Your task to perform on an android device: turn off location history Image 0: 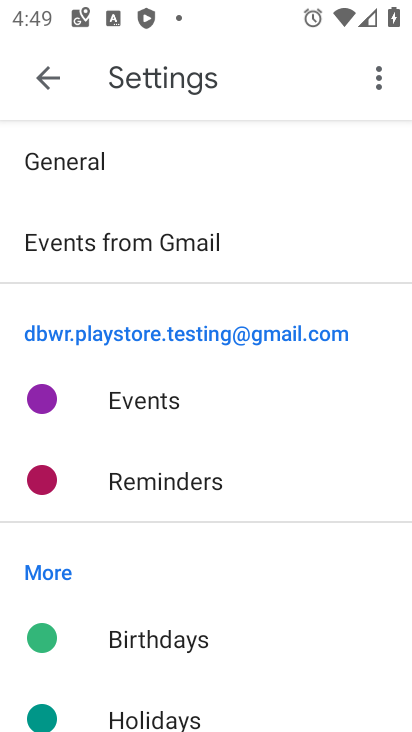
Step 0: press home button
Your task to perform on an android device: turn off location history Image 1: 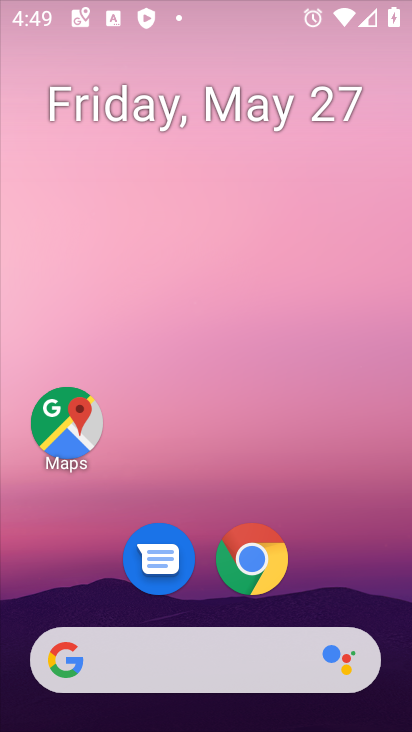
Step 1: drag from (237, 661) to (272, 149)
Your task to perform on an android device: turn off location history Image 2: 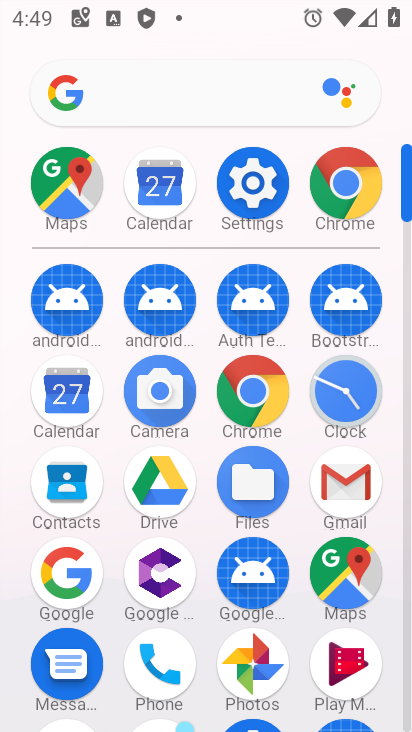
Step 2: drag from (292, 636) to (294, 264)
Your task to perform on an android device: turn off location history Image 3: 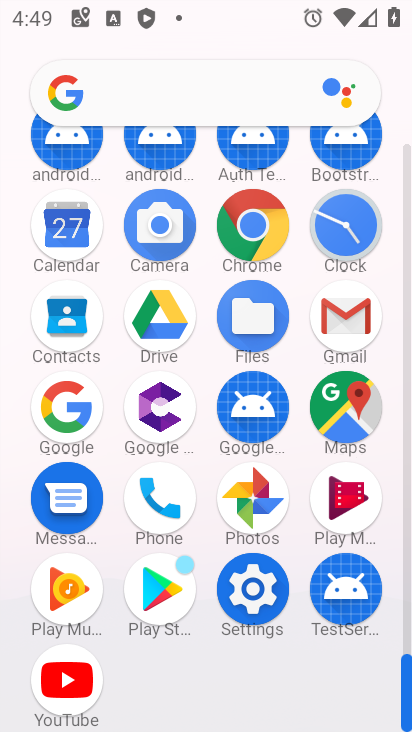
Step 3: click (262, 608)
Your task to perform on an android device: turn off location history Image 4: 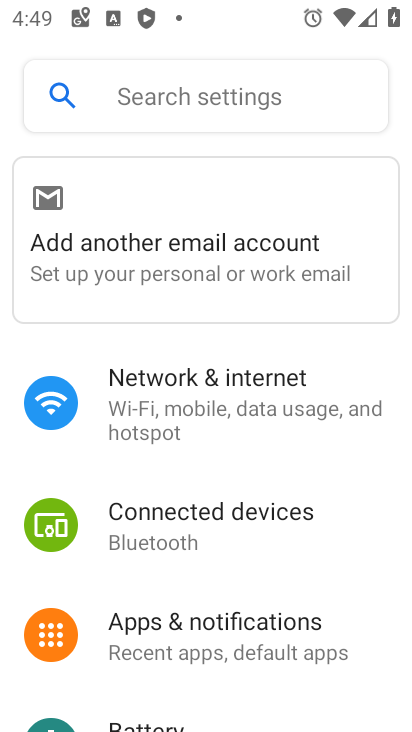
Step 4: drag from (262, 608) to (395, 92)
Your task to perform on an android device: turn off location history Image 5: 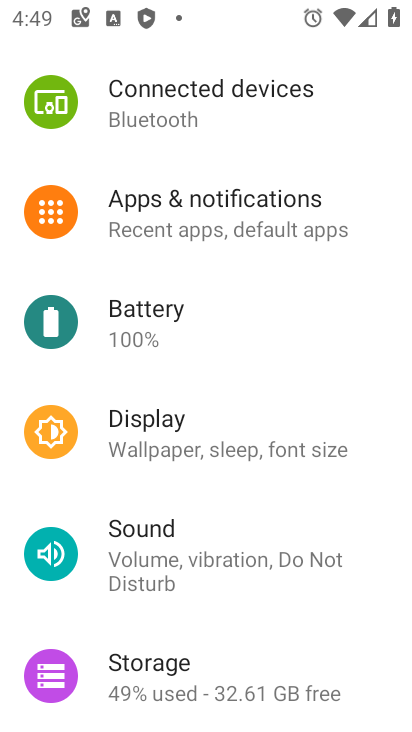
Step 5: drag from (290, 654) to (318, 185)
Your task to perform on an android device: turn off location history Image 6: 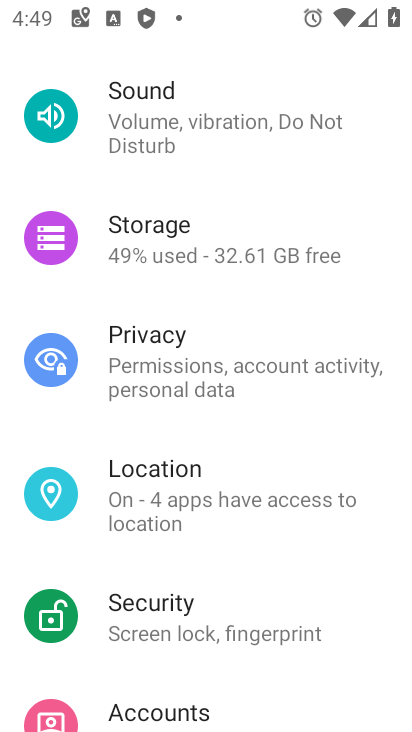
Step 6: drag from (240, 681) to (266, 73)
Your task to perform on an android device: turn off location history Image 7: 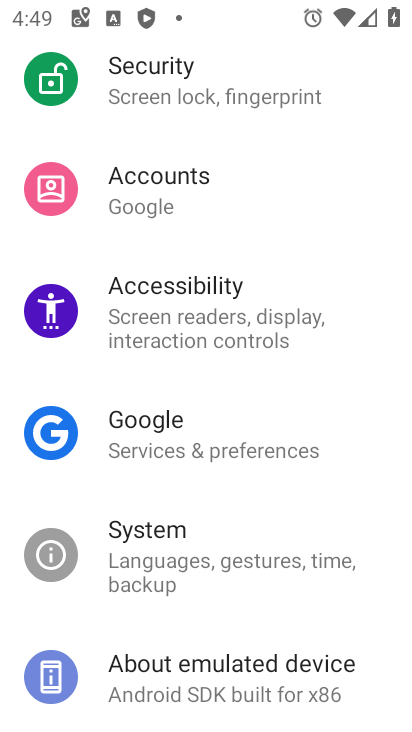
Step 7: drag from (232, 128) to (242, 544)
Your task to perform on an android device: turn off location history Image 8: 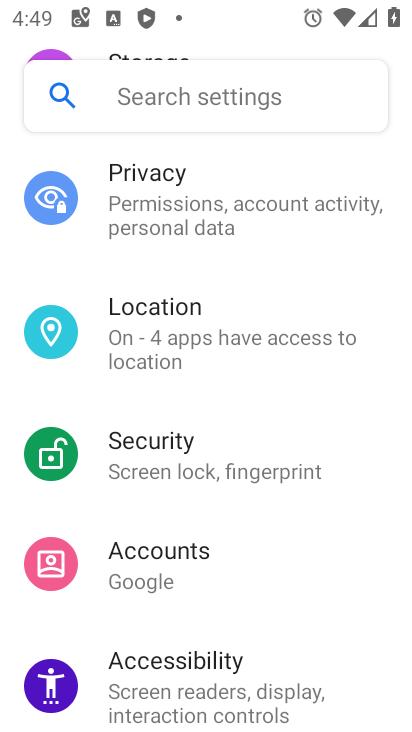
Step 8: click (269, 330)
Your task to perform on an android device: turn off location history Image 9: 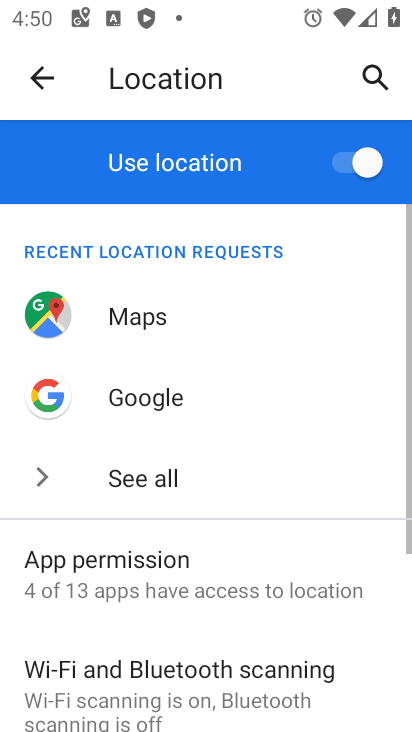
Step 9: drag from (297, 667) to (332, 116)
Your task to perform on an android device: turn off location history Image 10: 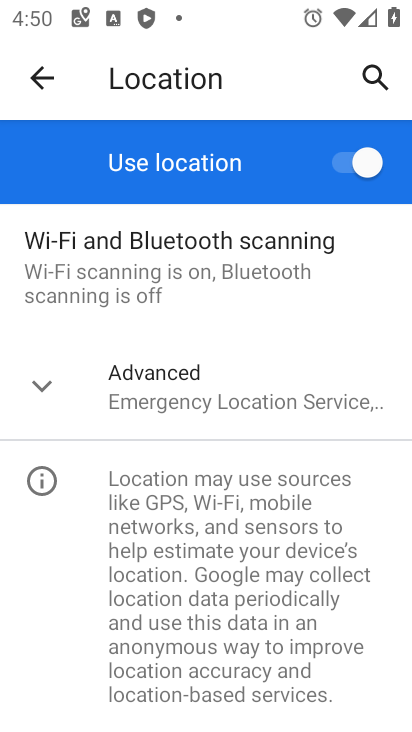
Step 10: click (263, 401)
Your task to perform on an android device: turn off location history Image 11: 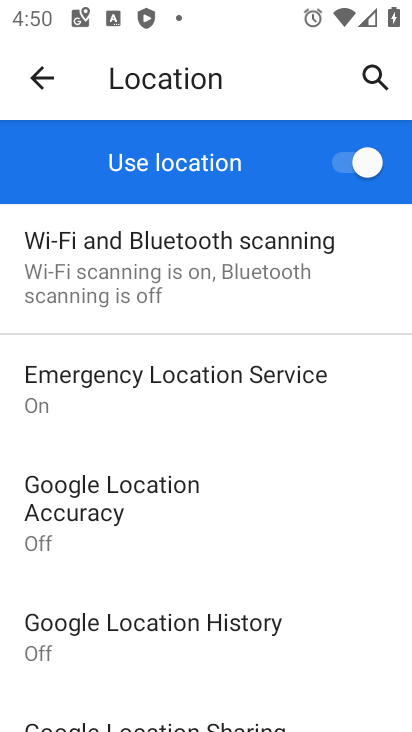
Step 11: click (268, 632)
Your task to perform on an android device: turn off location history Image 12: 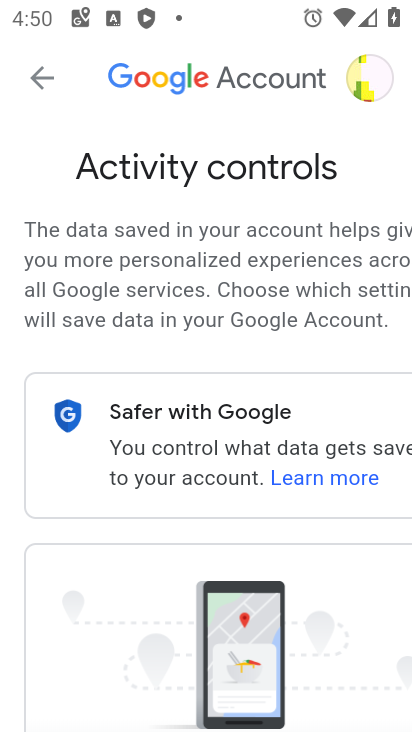
Step 12: drag from (291, 613) to (281, 3)
Your task to perform on an android device: turn off location history Image 13: 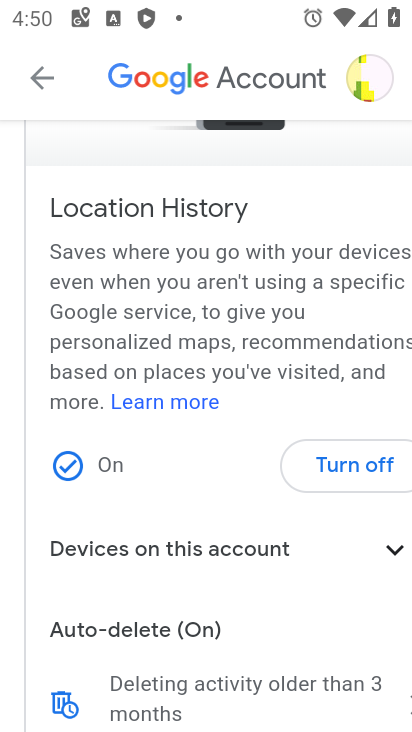
Step 13: click (344, 461)
Your task to perform on an android device: turn off location history Image 14: 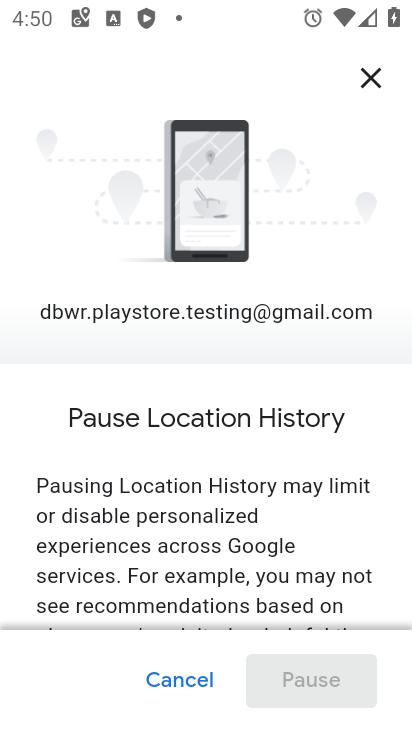
Step 14: drag from (211, 533) to (281, 3)
Your task to perform on an android device: turn off location history Image 15: 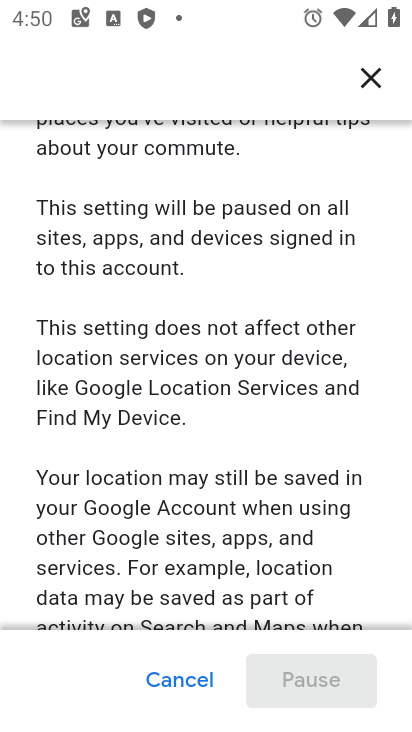
Step 15: drag from (268, 580) to (272, 6)
Your task to perform on an android device: turn off location history Image 16: 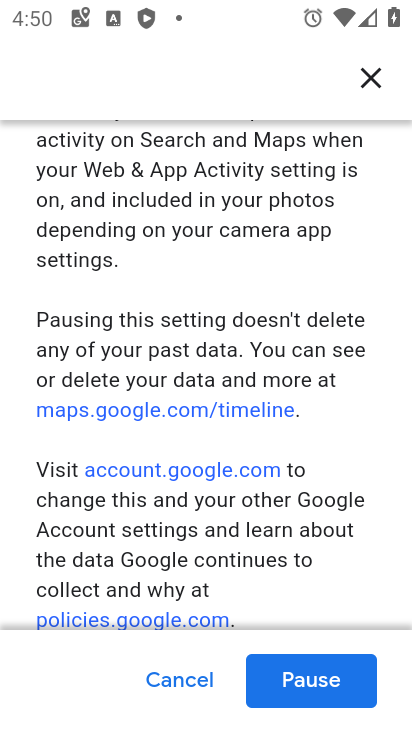
Step 16: click (296, 673)
Your task to perform on an android device: turn off location history Image 17: 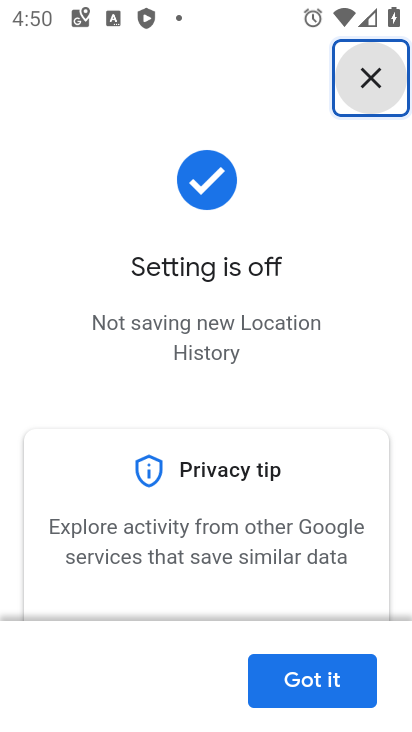
Step 17: task complete